Your task to perform on an android device: Go to Wikipedia Image 0: 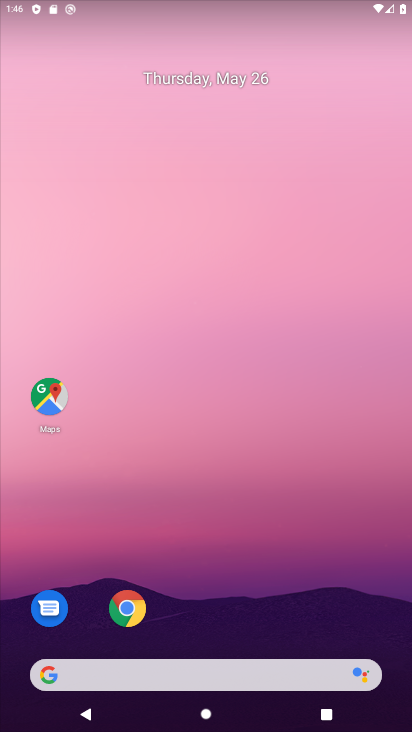
Step 0: click (296, 161)
Your task to perform on an android device: Go to Wikipedia Image 1: 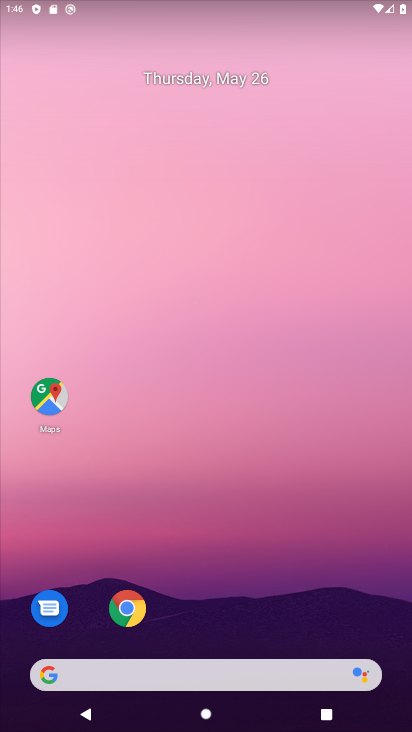
Step 1: drag from (267, 493) to (281, 82)
Your task to perform on an android device: Go to Wikipedia Image 2: 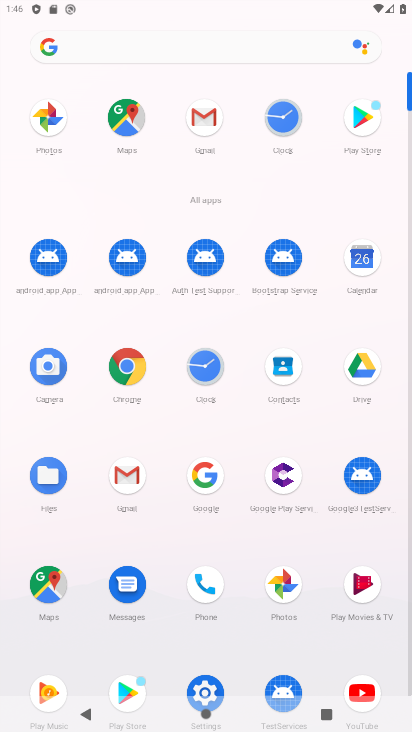
Step 2: click (130, 379)
Your task to perform on an android device: Go to Wikipedia Image 3: 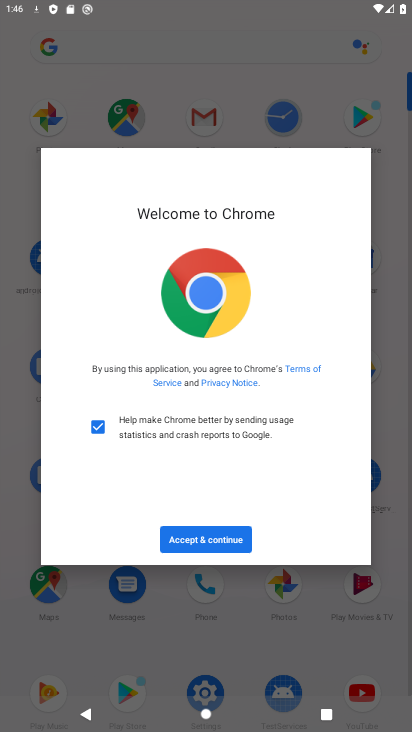
Step 3: click (195, 548)
Your task to perform on an android device: Go to Wikipedia Image 4: 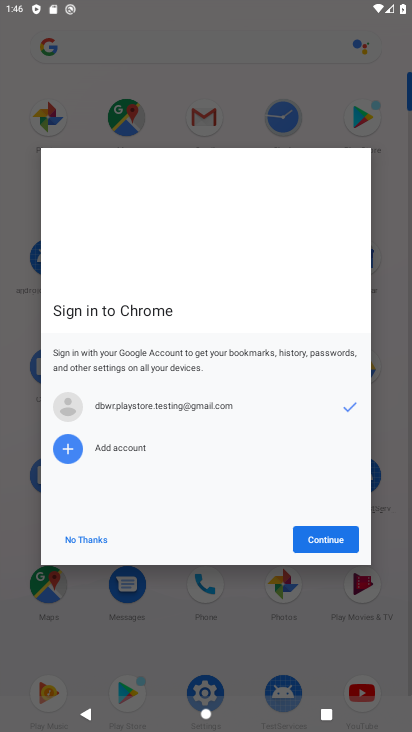
Step 4: click (78, 541)
Your task to perform on an android device: Go to Wikipedia Image 5: 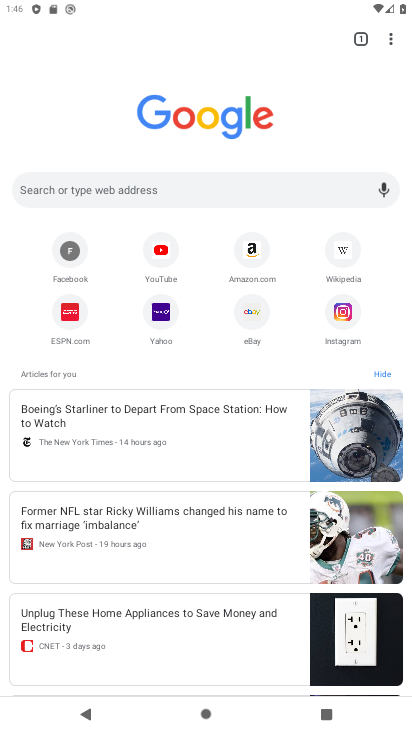
Step 5: click (325, 251)
Your task to perform on an android device: Go to Wikipedia Image 6: 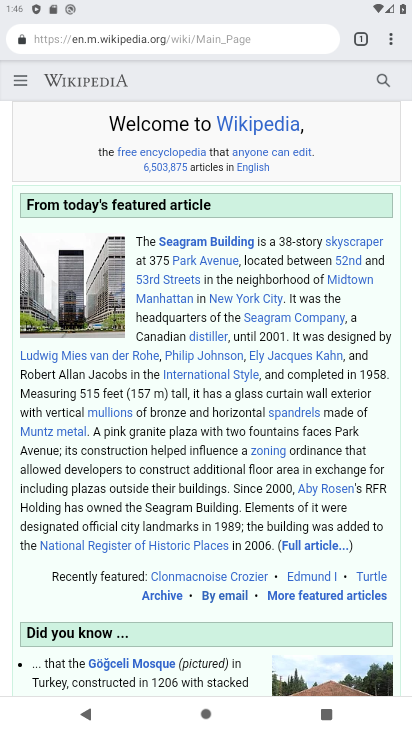
Step 6: task complete